Your task to perform on an android device: turn vacation reply on in the gmail app Image 0: 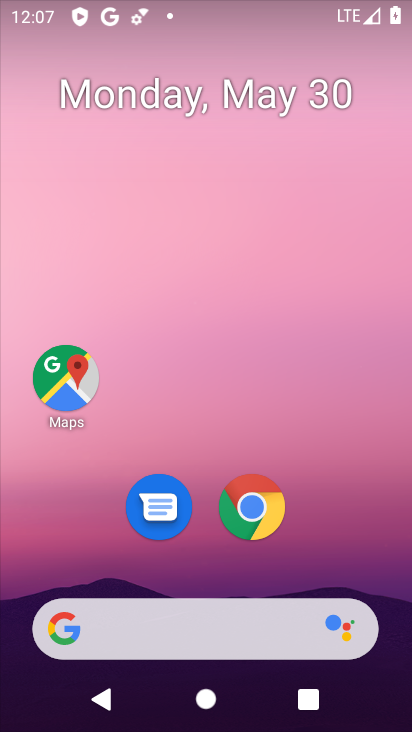
Step 0: drag from (308, 566) to (289, 64)
Your task to perform on an android device: turn vacation reply on in the gmail app Image 1: 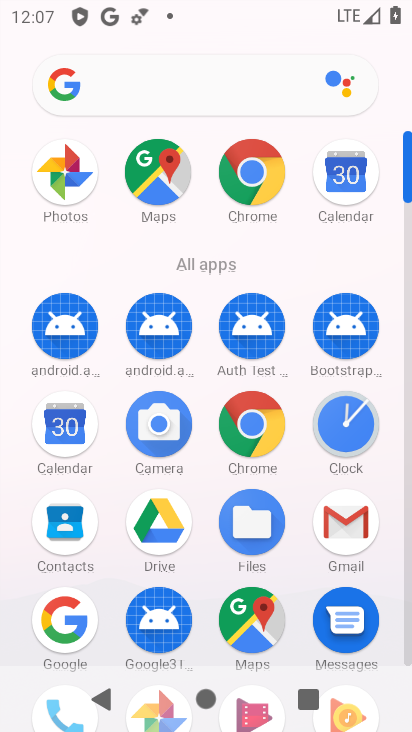
Step 1: click (350, 528)
Your task to perform on an android device: turn vacation reply on in the gmail app Image 2: 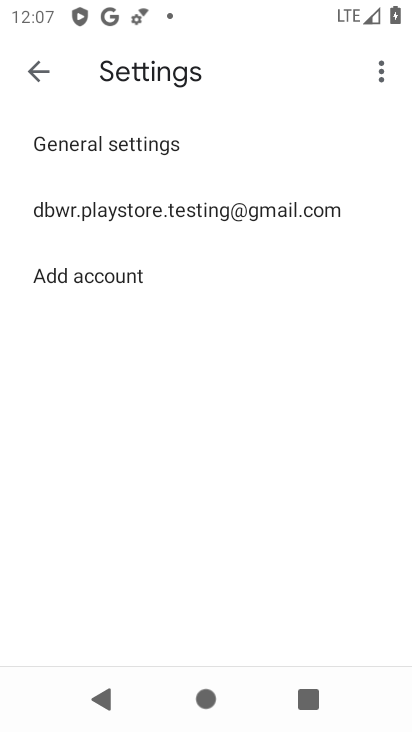
Step 2: click (257, 218)
Your task to perform on an android device: turn vacation reply on in the gmail app Image 3: 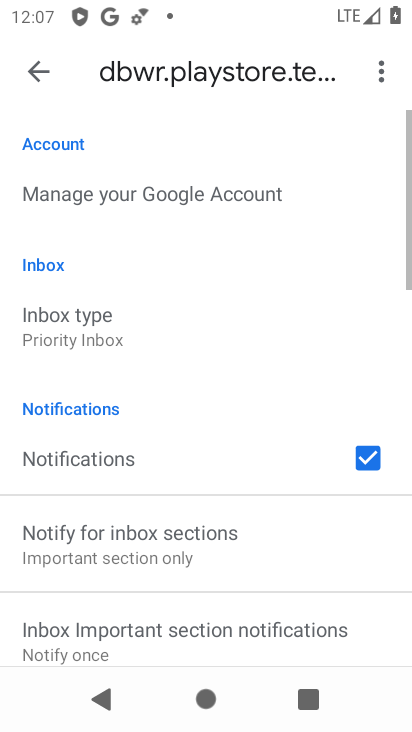
Step 3: drag from (228, 596) to (226, 234)
Your task to perform on an android device: turn vacation reply on in the gmail app Image 4: 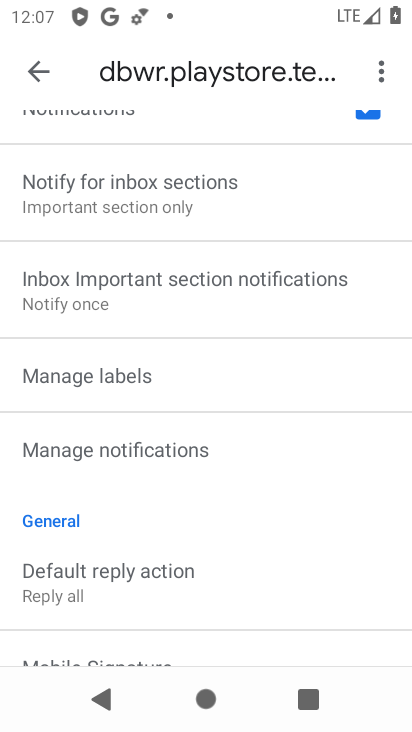
Step 4: drag from (266, 580) to (279, 160)
Your task to perform on an android device: turn vacation reply on in the gmail app Image 5: 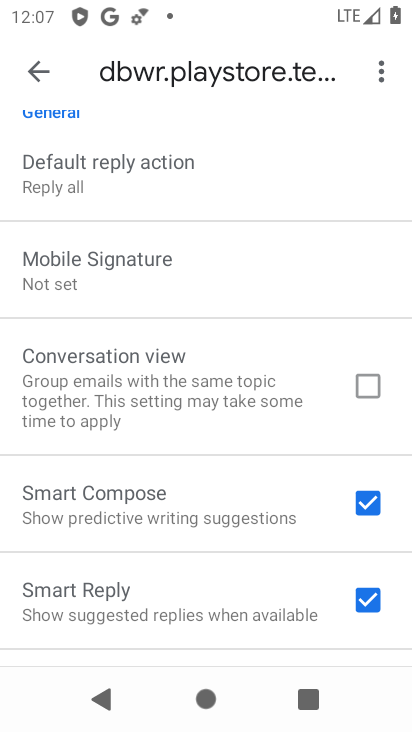
Step 5: drag from (238, 541) to (269, 266)
Your task to perform on an android device: turn vacation reply on in the gmail app Image 6: 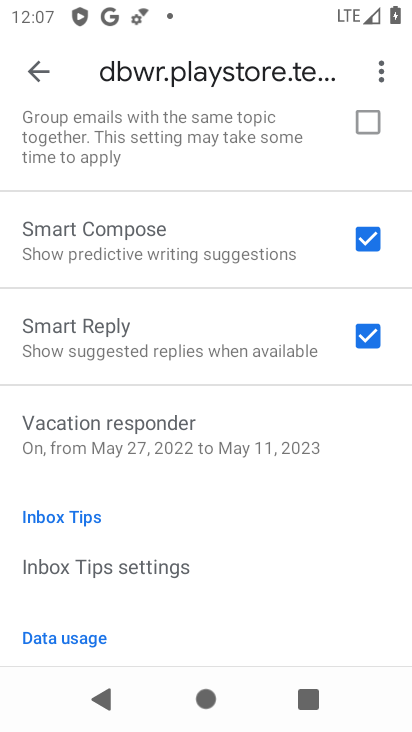
Step 6: click (184, 444)
Your task to perform on an android device: turn vacation reply on in the gmail app Image 7: 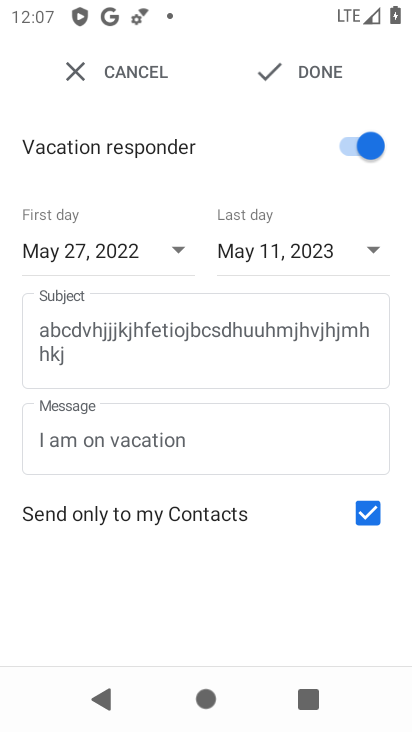
Step 7: click (316, 75)
Your task to perform on an android device: turn vacation reply on in the gmail app Image 8: 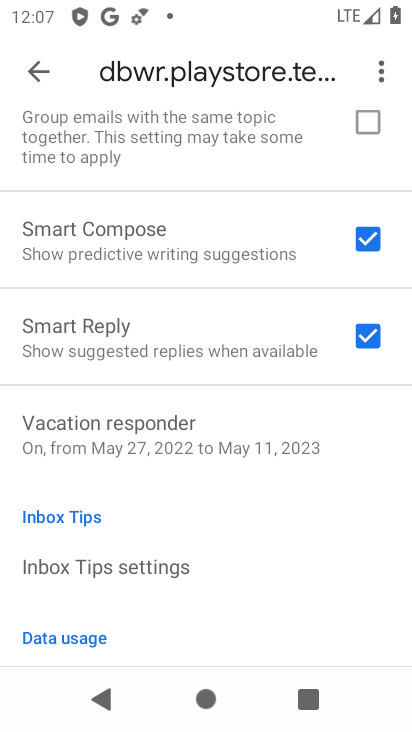
Step 8: task complete